Your task to perform on an android device: Go to ESPN.com Image 0: 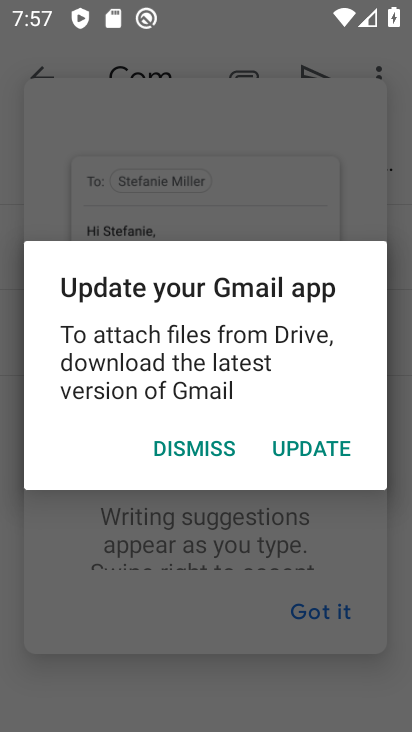
Step 0: press home button
Your task to perform on an android device: Go to ESPN.com Image 1: 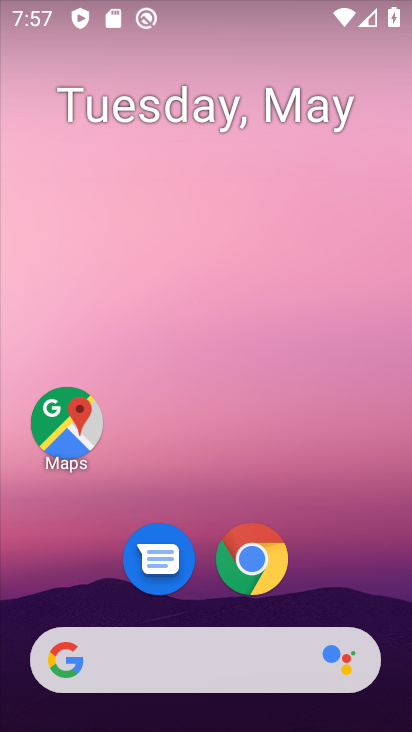
Step 1: click (251, 577)
Your task to perform on an android device: Go to ESPN.com Image 2: 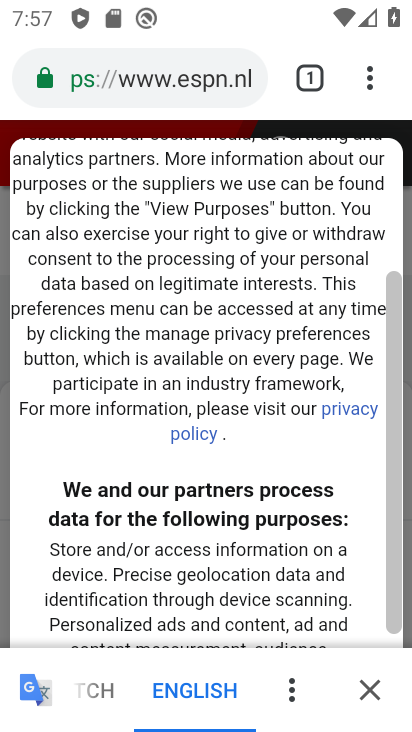
Step 2: click (297, 87)
Your task to perform on an android device: Go to ESPN.com Image 3: 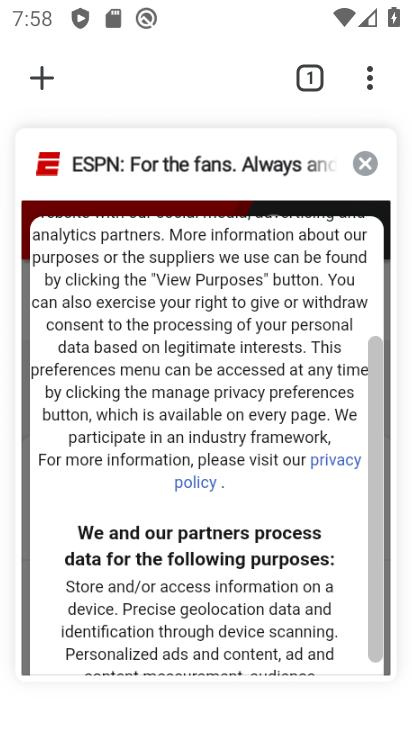
Step 3: click (120, 216)
Your task to perform on an android device: Go to ESPN.com Image 4: 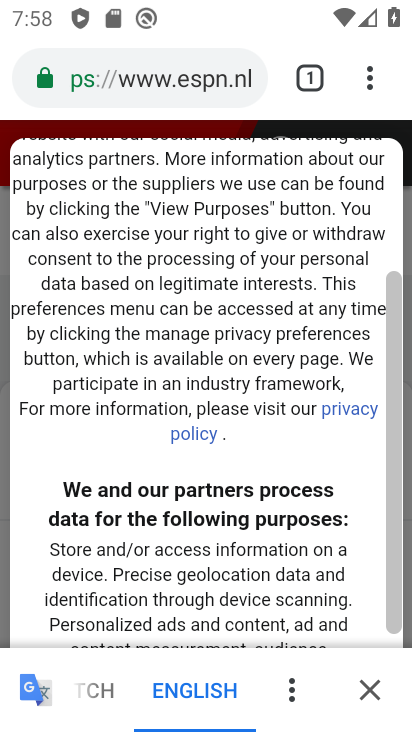
Step 4: click (364, 694)
Your task to perform on an android device: Go to ESPN.com Image 5: 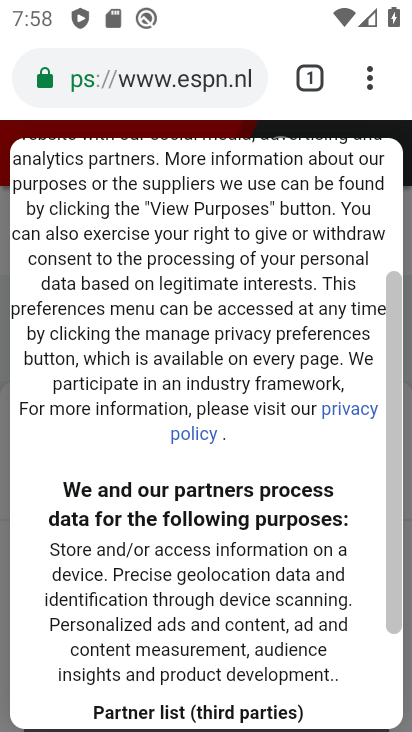
Step 5: drag from (310, 556) to (310, 114)
Your task to perform on an android device: Go to ESPN.com Image 6: 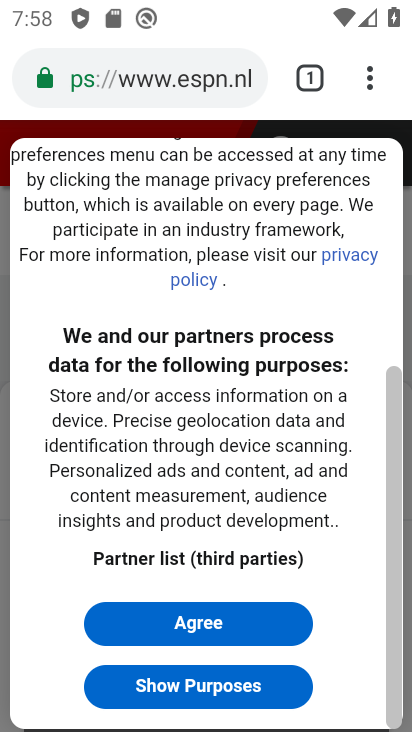
Step 6: drag from (305, 471) to (300, 169)
Your task to perform on an android device: Go to ESPN.com Image 7: 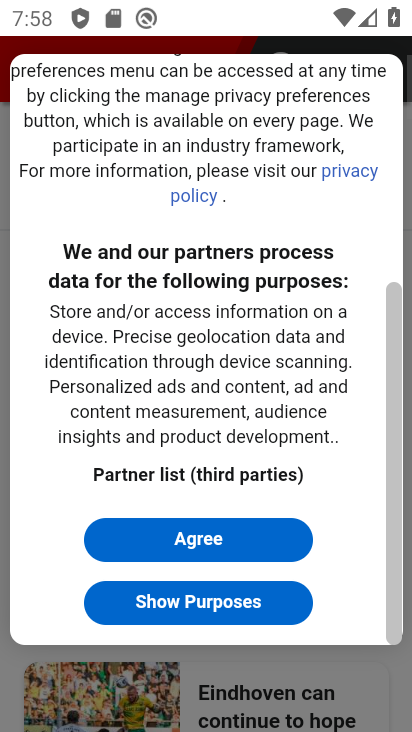
Step 7: drag from (218, 612) to (242, 427)
Your task to perform on an android device: Go to ESPN.com Image 8: 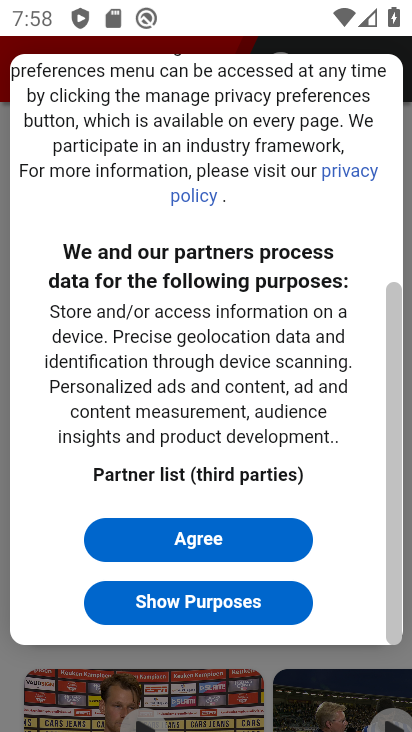
Step 8: click (226, 548)
Your task to perform on an android device: Go to ESPN.com Image 9: 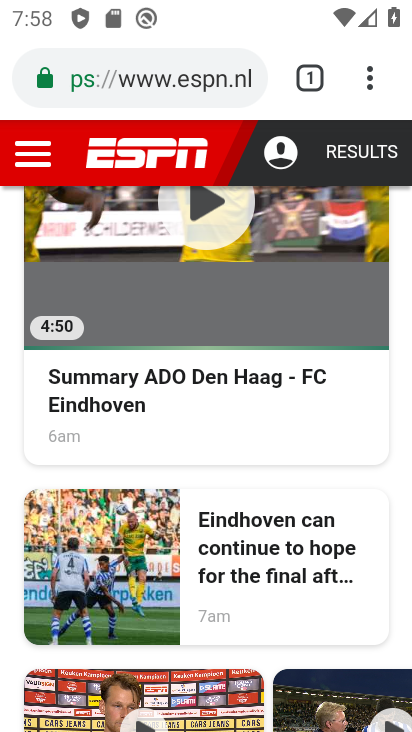
Step 9: task complete